Your task to perform on an android device: Empty the shopping cart on amazon.com. Search for lg ultragear on amazon.com, select the first entry, and add it to the cart. Image 0: 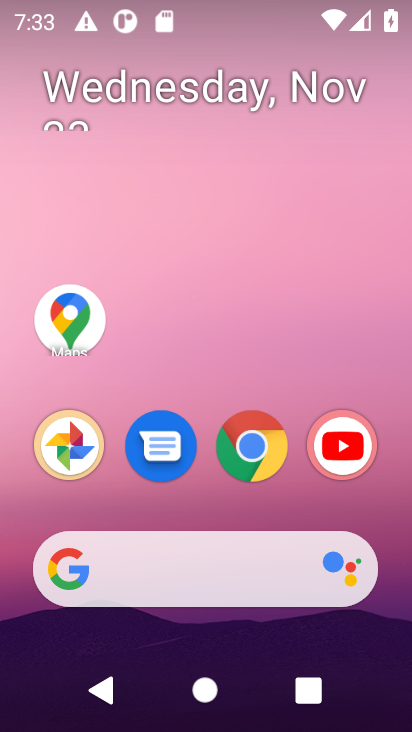
Step 0: click (235, 562)
Your task to perform on an android device: Empty the shopping cart on amazon.com. Search for lg ultragear on amazon.com, select the first entry, and add it to the cart. Image 1: 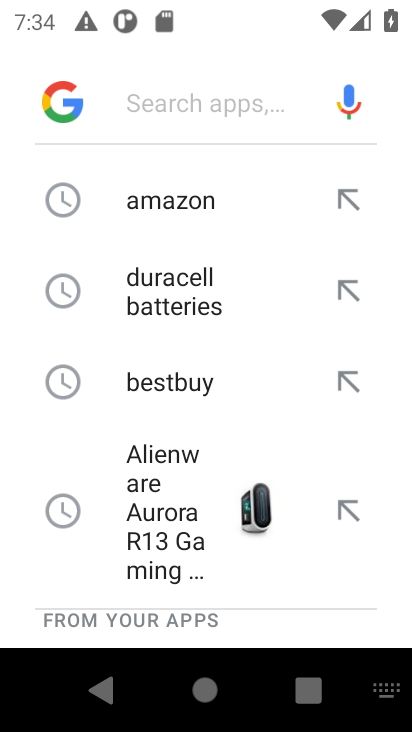
Step 1: type "amazon.com"
Your task to perform on an android device: Empty the shopping cart on amazon.com. Search for lg ultragear on amazon.com, select the first entry, and add it to the cart. Image 2: 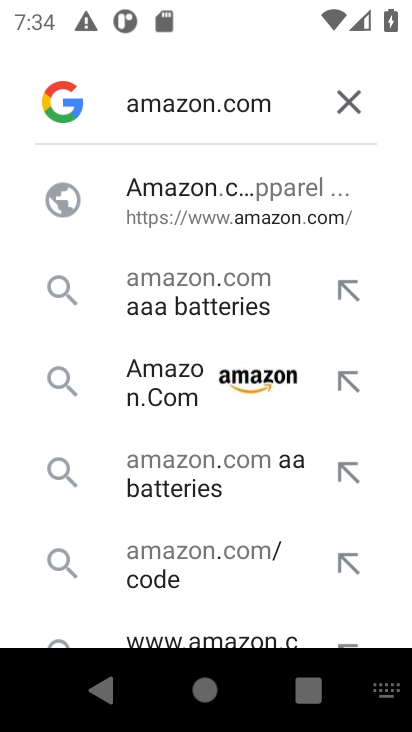
Step 2: click (233, 223)
Your task to perform on an android device: Empty the shopping cart on amazon.com. Search for lg ultragear on amazon.com, select the first entry, and add it to the cart. Image 3: 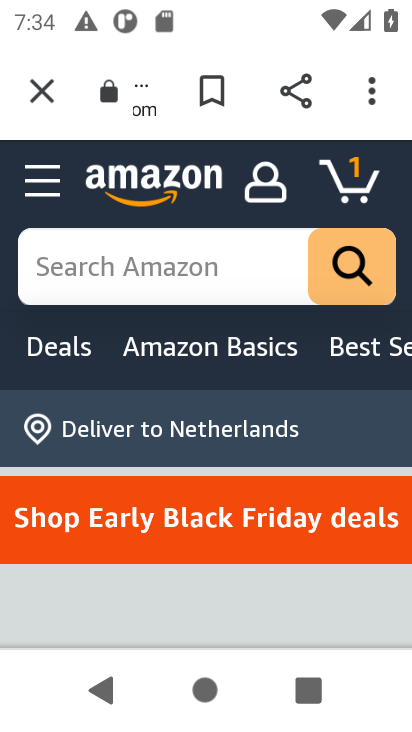
Step 3: click (176, 272)
Your task to perform on an android device: Empty the shopping cart on amazon.com. Search for lg ultragear on amazon.com, select the first entry, and add it to the cart. Image 4: 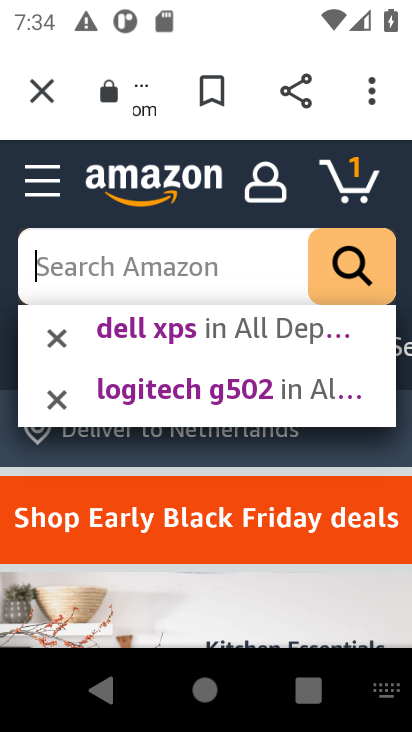
Step 4: type "lg ultragear"
Your task to perform on an android device: Empty the shopping cart on amazon.com. Search for lg ultragear on amazon.com, select the first entry, and add it to the cart. Image 5: 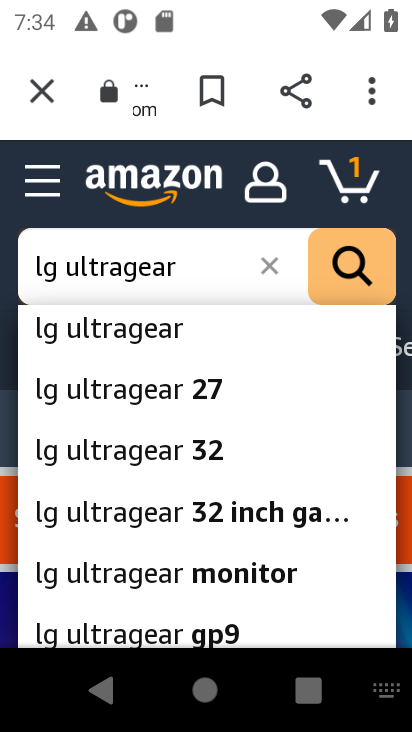
Step 5: click (172, 341)
Your task to perform on an android device: Empty the shopping cart on amazon.com. Search for lg ultragear on amazon.com, select the first entry, and add it to the cart. Image 6: 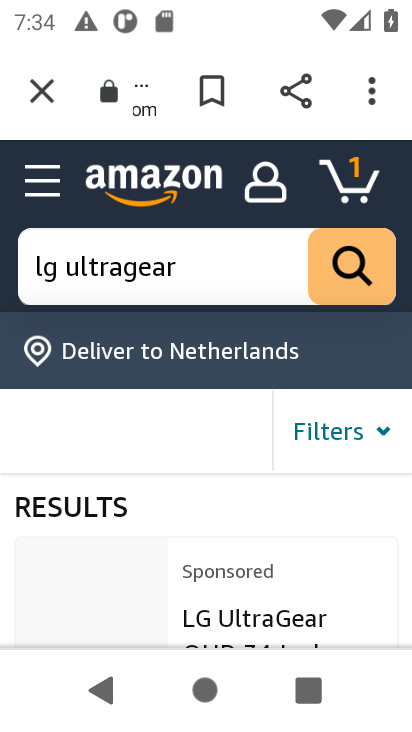
Step 6: drag from (167, 569) to (203, 336)
Your task to perform on an android device: Empty the shopping cart on amazon.com. Search for lg ultragear on amazon.com, select the first entry, and add it to the cart. Image 7: 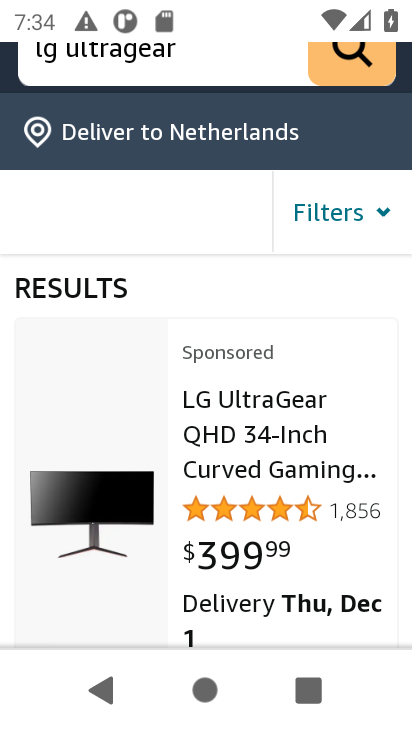
Step 7: drag from (172, 559) to (295, 148)
Your task to perform on an android device: Empty the shopping cart on amazon.com. Search for lg ultragear on amazon.com, select the first entry, and add it to the cart. Image 8: 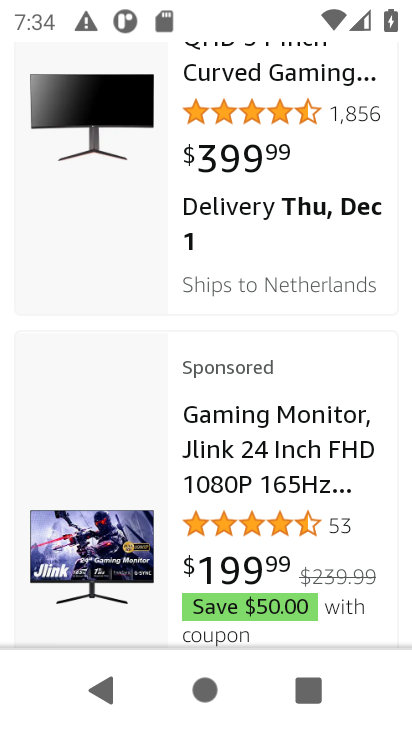
Step 8: drag from (201, 561) to (289, 174)
Your task to perform on an android device: Empty the shopping cart on amazon.com. Search for lg ultragear on amazon.com, select the first entry, and add it to the cart. Image 9: 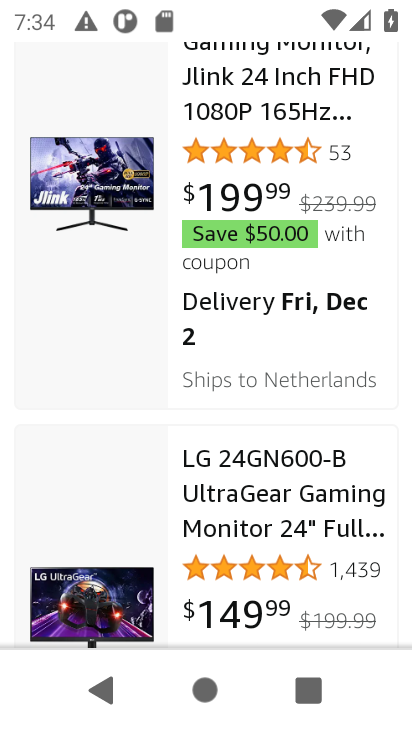
Step 9: click (286, 129)
Your task to perform on an android device: Empty the shopping cart on amazon.com. Search for lg ultragear on amazon.com, select the first entry, and add it to the cart. Image 10: 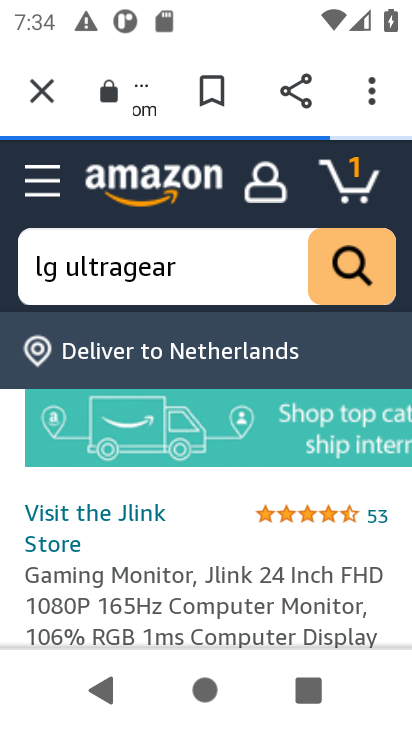
Step 10: task complete